Your task to perform on an android device: open sync settings in chrome Image 0: 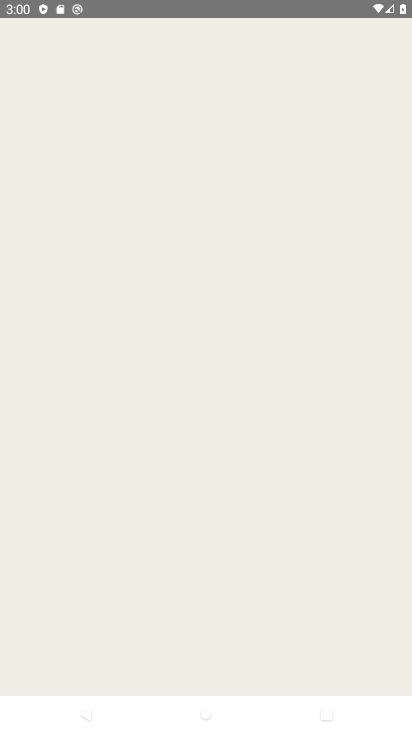
Step 0: click (274, 66)
Your task to perform on an android device: open sync settings in chrome Image 1: 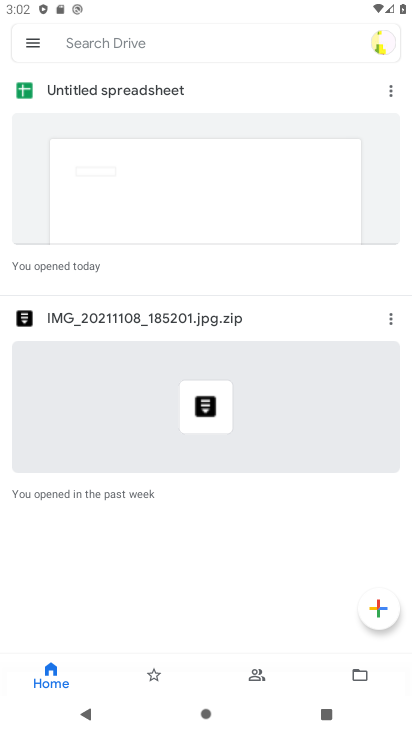
Step 1: press home button
Your task to perform on an android device: open sync settings in chrome Image 2: 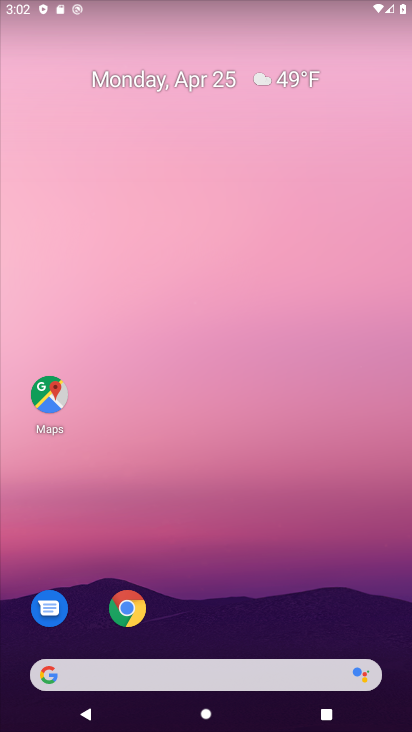
Step 2: click (115, 599)
Your task to perform on an android device: open sync settings in chrome Image 3: 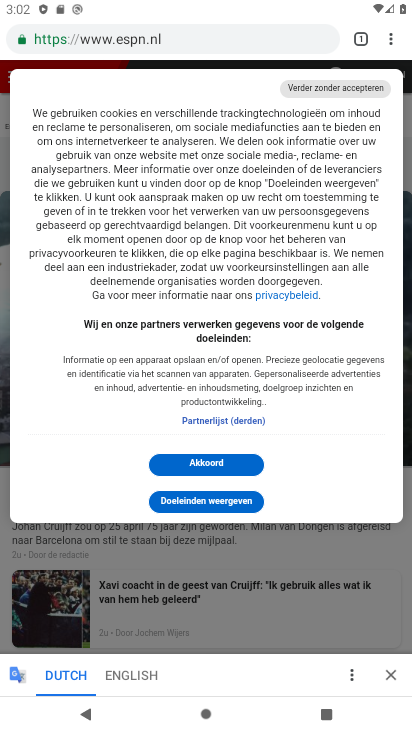
Step 3: drag from (393, 38) to (261, 475)
Your task to perform on an android device: open sync settings in chrome Image 4: 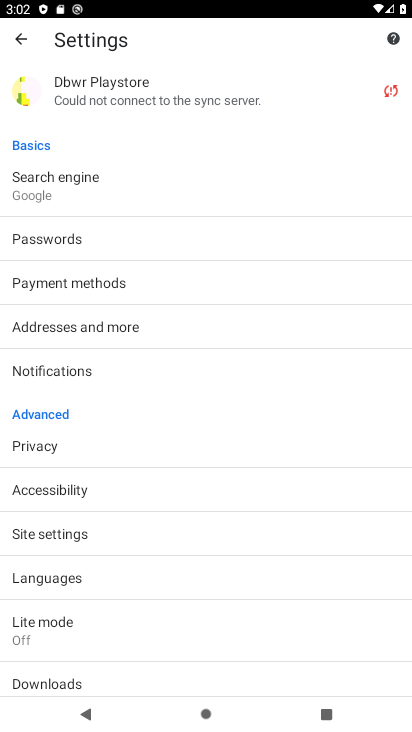
Step 4: click (128, 102)
Your task to perform on an android device: open sync settings in chrome Image 5: 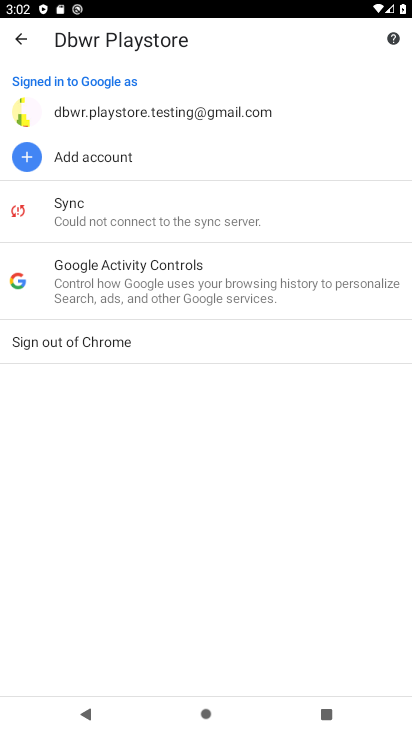
Step 5: click (80, 217)
Your task to perform on an android device: open sync settings in chrome Image 6: 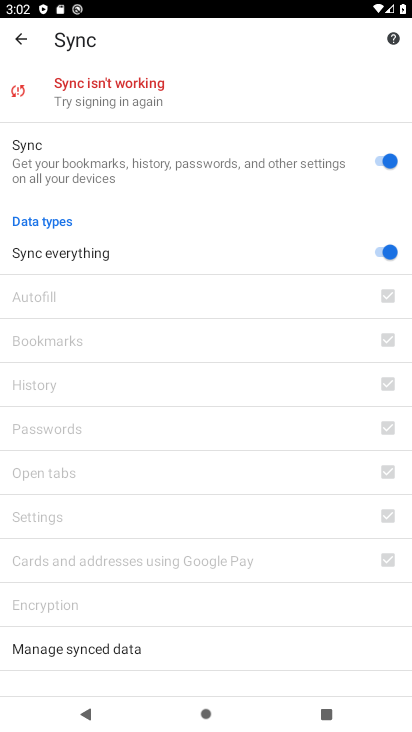
Step 6: task complete